Your task to perform on an android device: remove spam from my inbox in the gmail app Image 0: 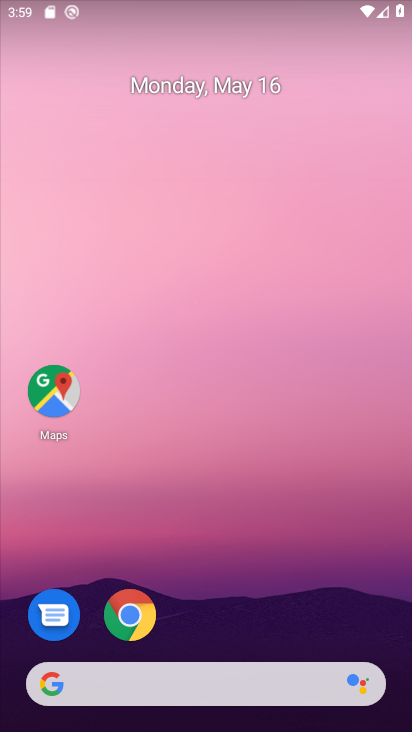
Step 0: drag from (201, 632) to (278, 54)
Your task to perform on an android device: remove spam from my inbox in the gmail app Image 1: 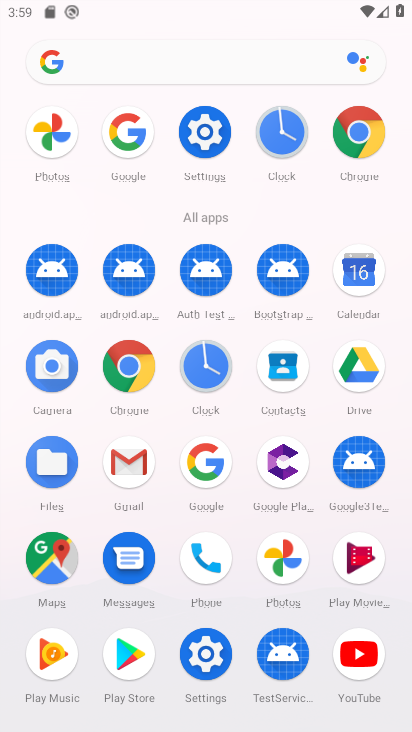
Step 1: click (134, 462)
Your task to perform on an android device: remove spam from my inbox in the gmail app Image 2: 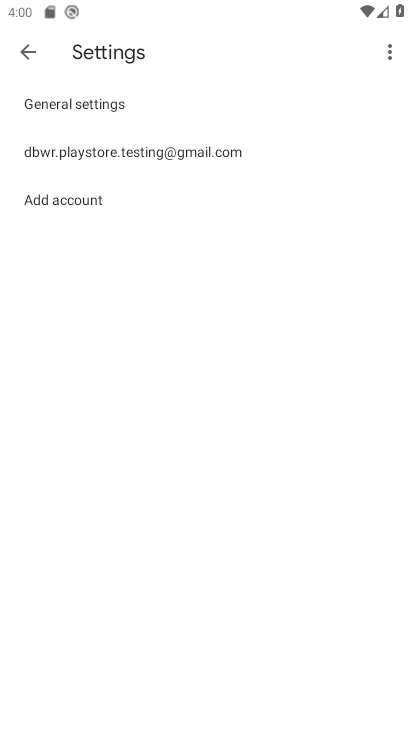
Step 2: click (24, 52)
Your task to perform on an android device: remove spam from my inbox in the gmail app Image 3: 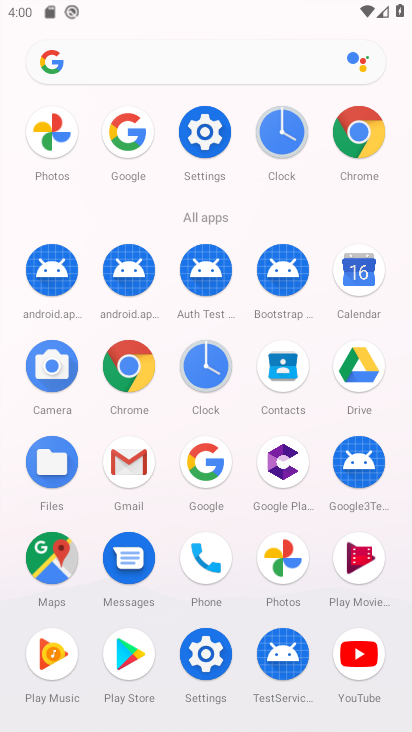
Step 3: click (126, 476)
Your task to perform on an android device: remove spam from my inbox in the gmail app Image 4: 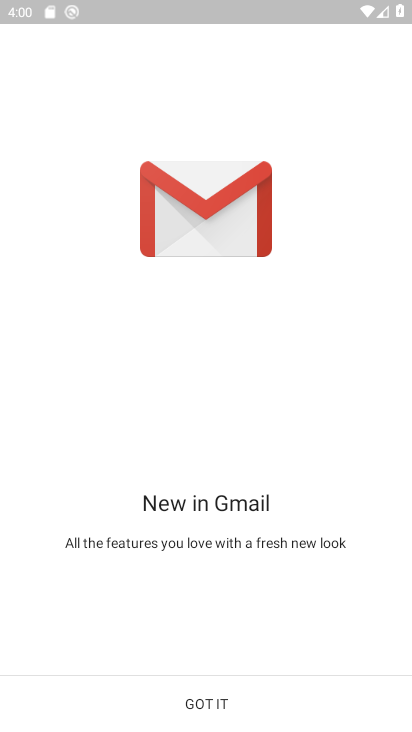
Step 4: click (213, 687)
Your task to perform on an android device: remove spam from my inbox in the gmail app Image 5: 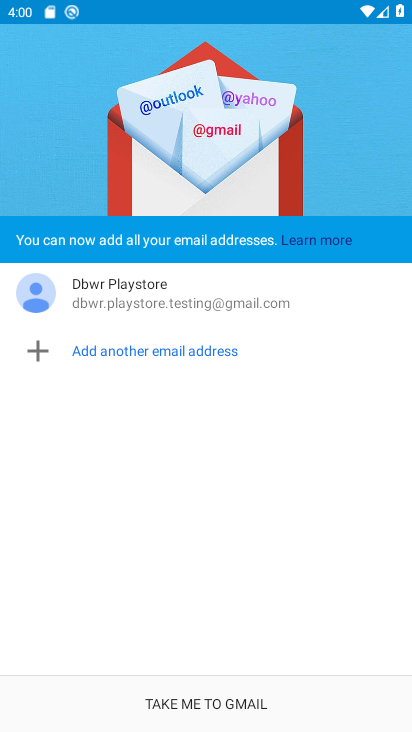
Step 5: click (173, 715)
Your task to perform on an android device: remove spam from my inbox in the gmail app Image 6: 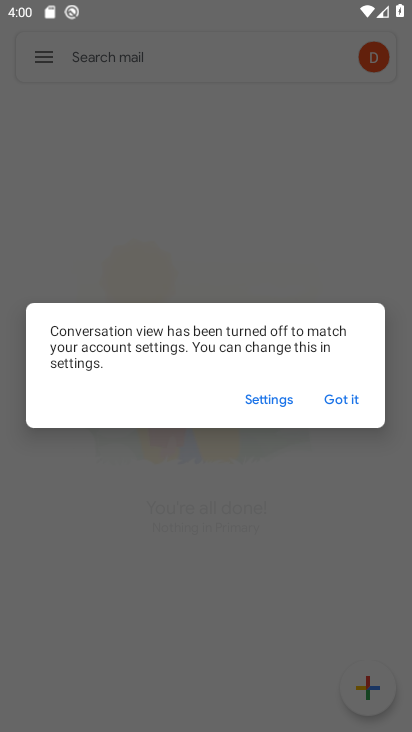
Step 6: click (335, 396)
Your task to perform on an android device: remove spam from my inbox in the gmail app Image 7: 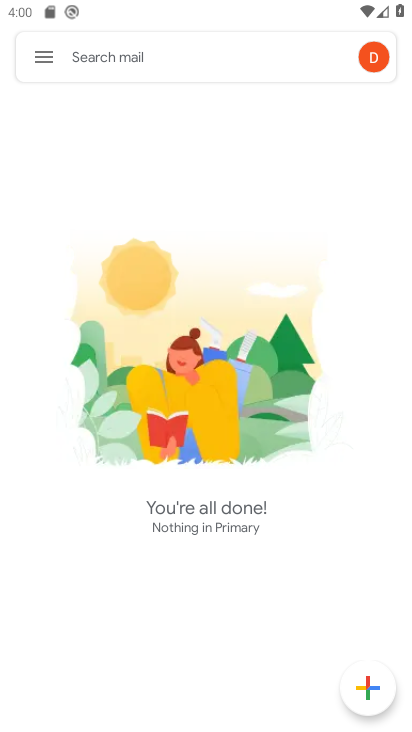
Step 7: click (49, 56)
Your task to perform on an android device: remove spam from my inbox in the gmail app Image 8: 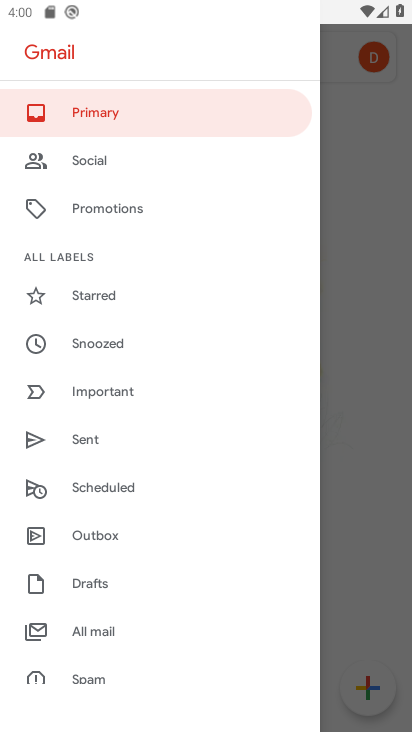
Step 8: click (91, 683)
Your task to perform on an android device: remove spam from my inbox in the gmail app Image 9: 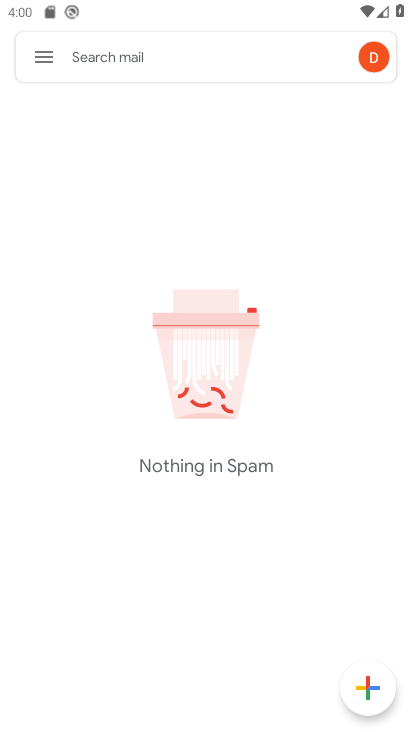
Step 9: task complete